Your task to perform on an android device: turn off location history Image 0: 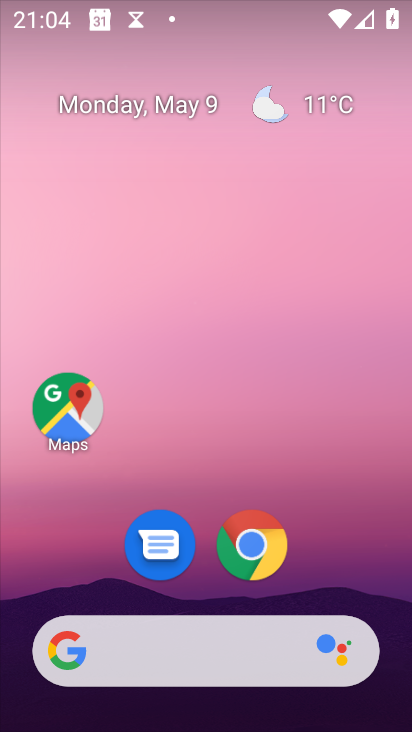
Step 0: drag from (204, 726) to (167, 183)
Your task to perform on an android device: turn off location history Image 1: 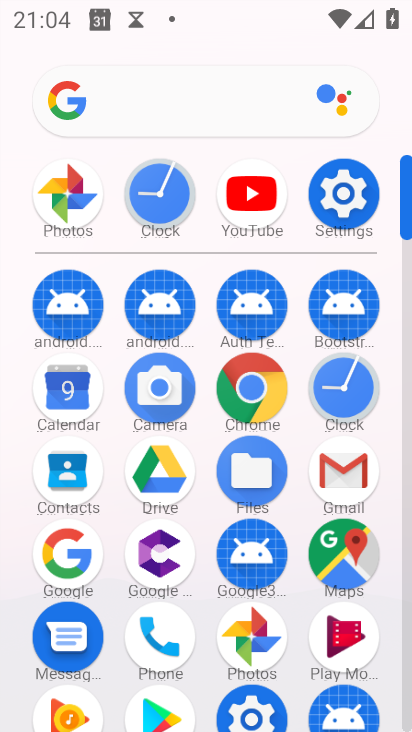
Step 1: click (341, 188)
Your task to perform on an android device: turn off location history Image 2: 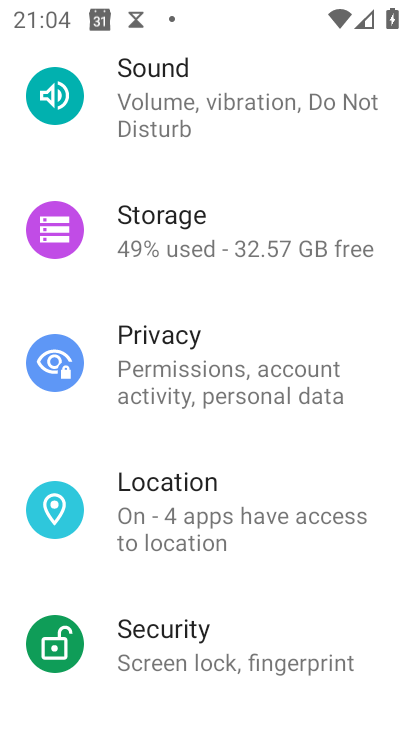
Step 2: drag from (345, 167) to (331, 289)
Your task to perform on an android device: turn off location history Image 3: 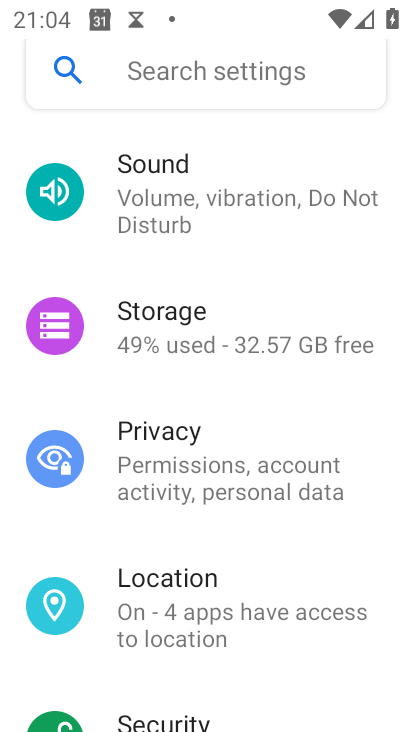
Step 3: click (175, 621)
Your task to perform on an android device: turn off location history Image 4: 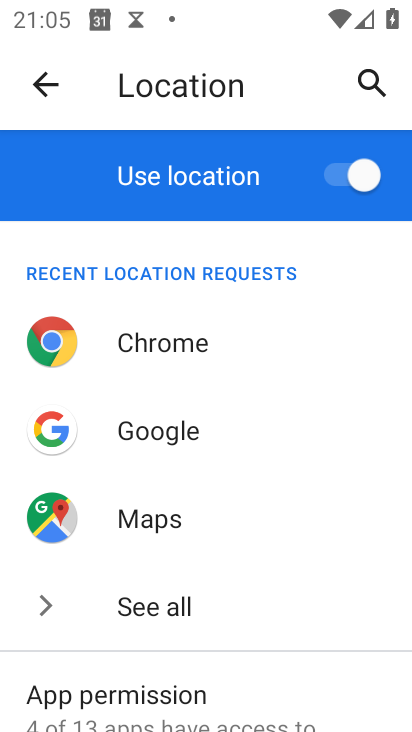
Step 4: drag from (187, 692) to (184, 328)
Your task to perform on an android device: turn off location history Image 5: 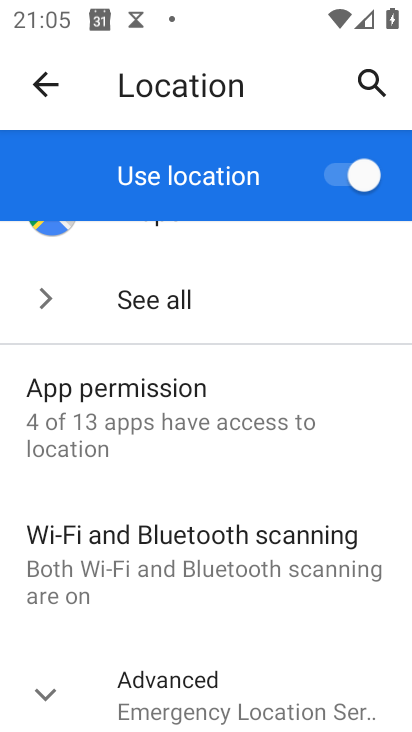
Step 5: click (179, 677)
Your task to perform on an android device: turn off location history Image 6: 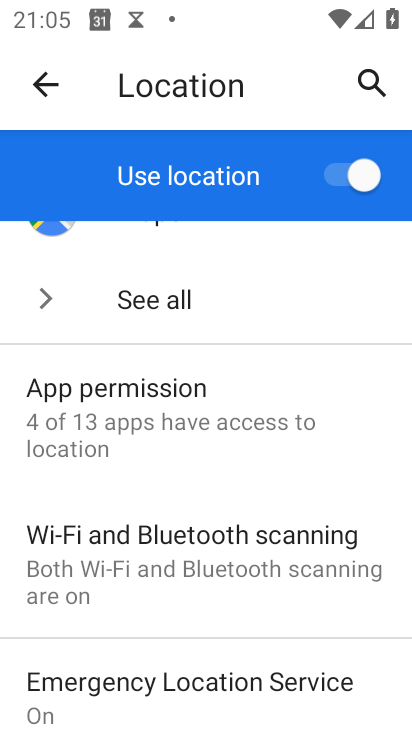
Step 6: drag from (220, 695) to (232, 350)
Your task to perform on an android device: turn off location history Image 7: 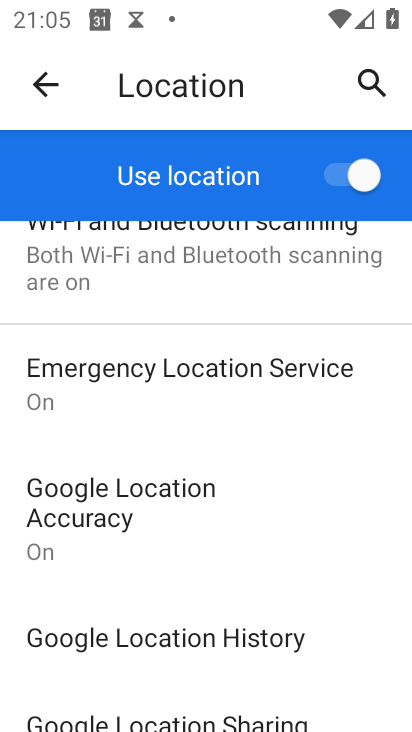
Step 7: click (175, 636)
Your task to perform on an android device: turn off location history Image 8: 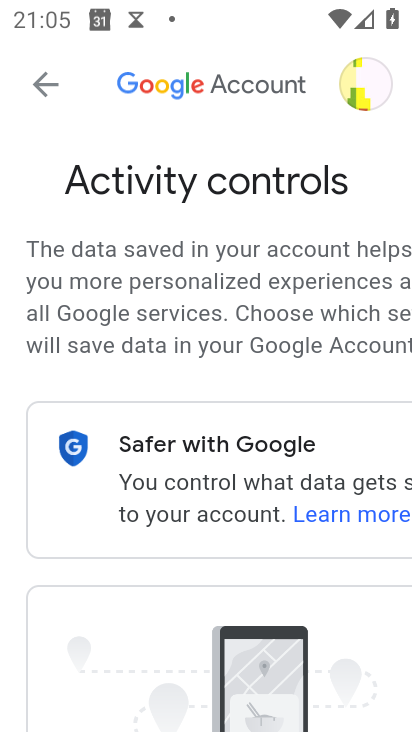
Step 8: task complete